Your task to perform on an android device: choose inbox layout in the gmail app Image 0: 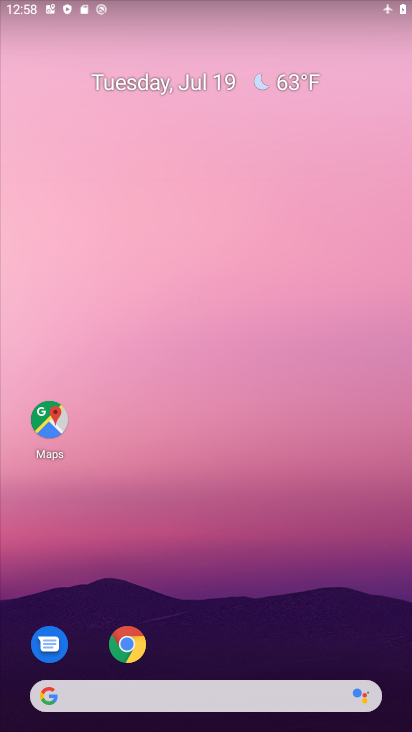
Step 0: drag from (226, 726) to (226, 139)
Your task to perform on an android device: choose inbox layout in the gmail app Image 1: 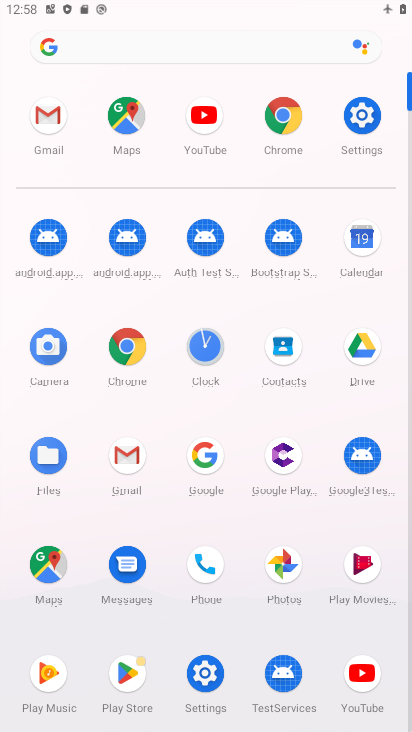
Step 1: click (125, 450)
Your task to perform on an android device: choose inbox layout in the gmail app Image 2: 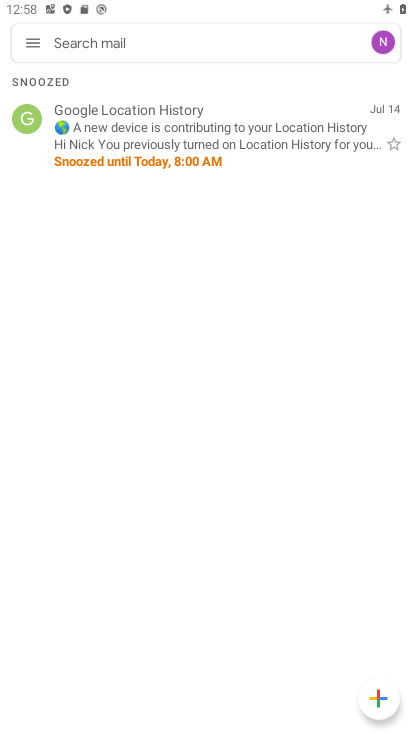
Step 2: click (32, 41)
Your task to perform on an android device: choose inbox layout in the gmail app Image 3: 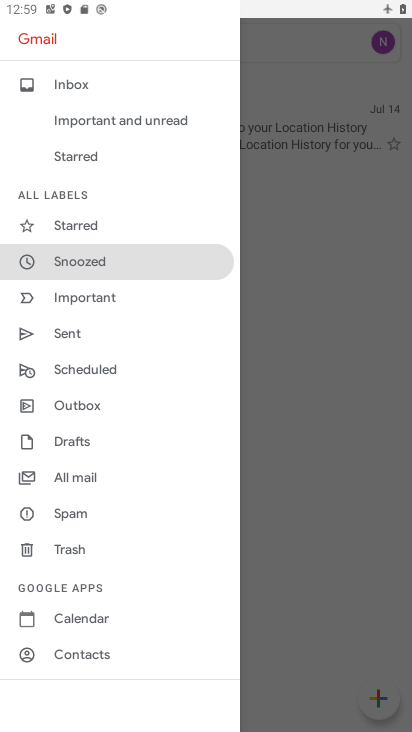
Step 3: drag from (46, 661) to (88, 288)
Your task to perform on an android device: choose inbox layout in the gmail app Image 4: 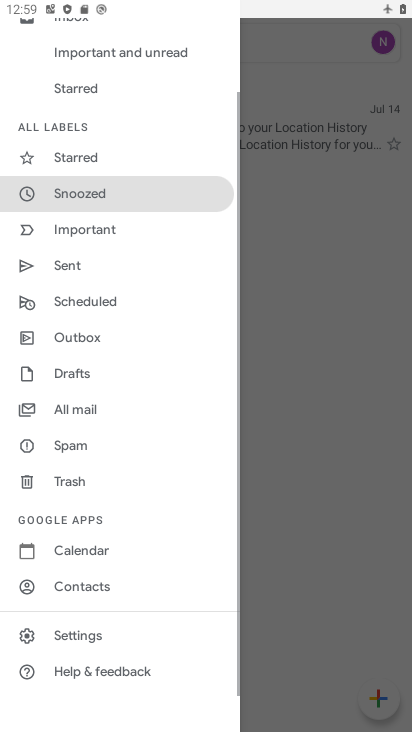
Step 4: click (75, 632)
Your task to perform on an android device: choose inbox layout in the gmail app Image 5: 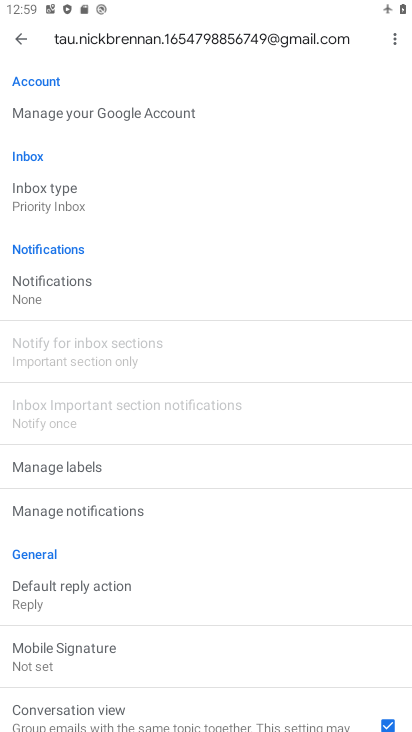
Step 5: click (36, 199)
Your task to perform on an android device: choose inbox layout in the gmail app Image 6: 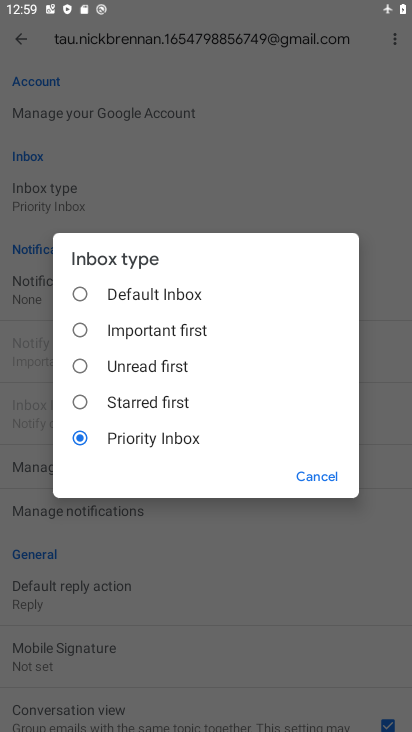
Step 6: click (81, 287)
Your task to perform on an android device: choose inbox layout in the gmail app Image 7: 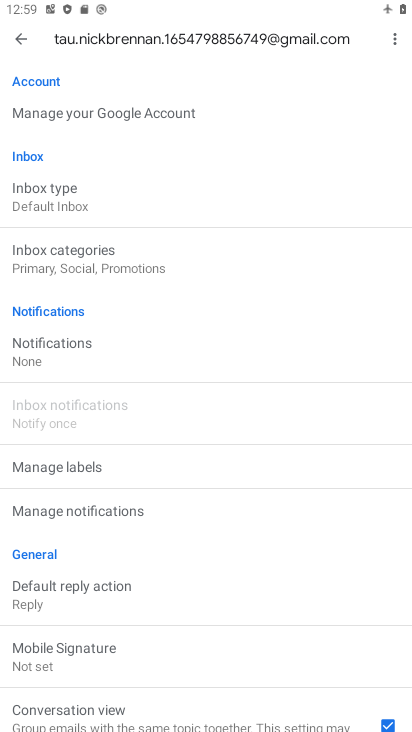
Step 7: task complete